Your task to perform on an android device: change your default location settings in chrome Image 0: 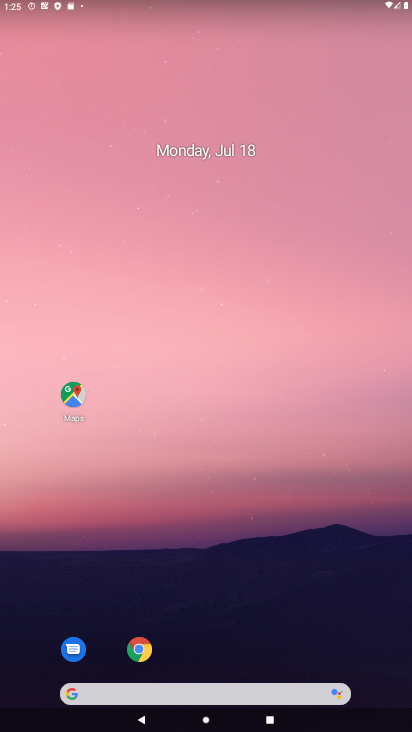
Step 0: drag from (249, 676) to (215, 66)
Your task to perform on an android device: change your default location settings in chrome Image 1: 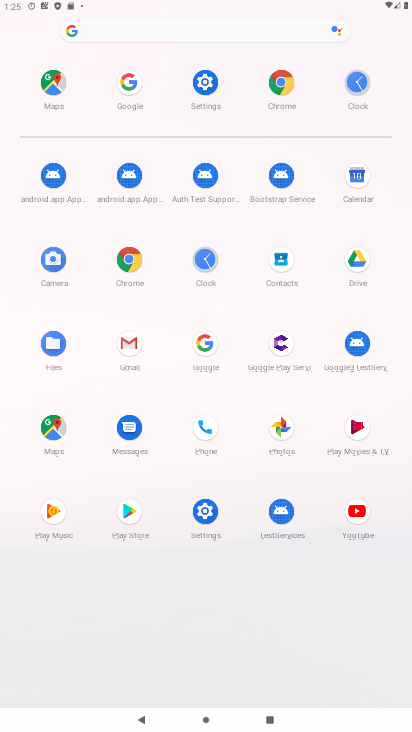
Step 1: click (142, 261)
Your task to perform on an android device: change your default location settings in chrome Image 2: 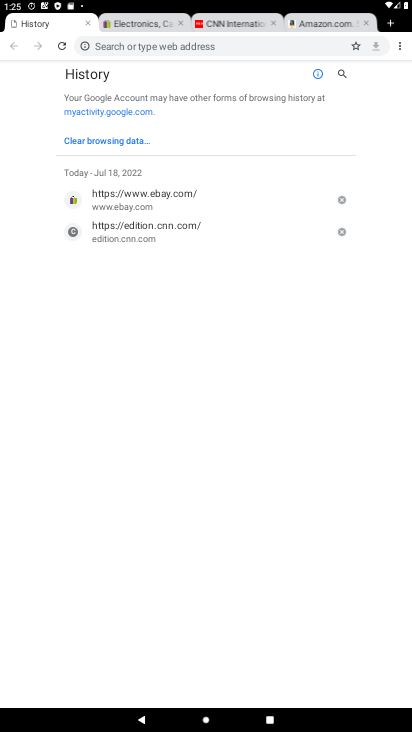
Step 2: click (401, 46)
Your task to perform on an android device: change your default location settings in chrome Image 3: 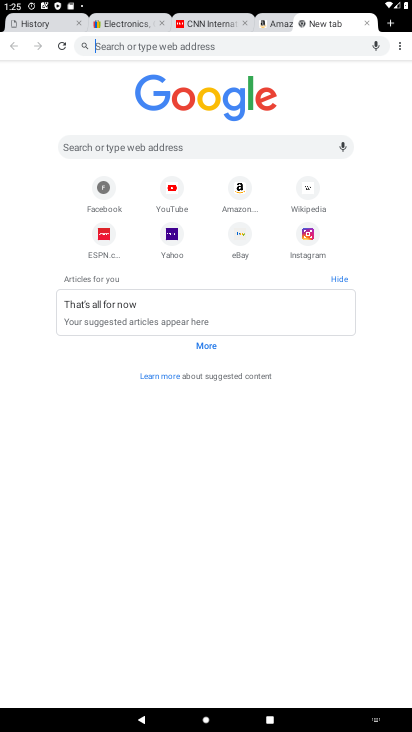
Step 3: click (398, 41)
Your task to perform on an android device: change your default location settings in chrome Image 4: 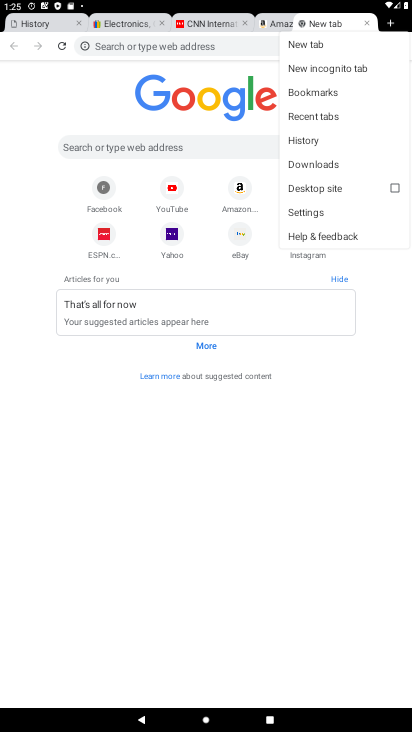
Step 4: click (324, 215)
Your task to perform on an android device: change your default location settings in chrome Image 5: 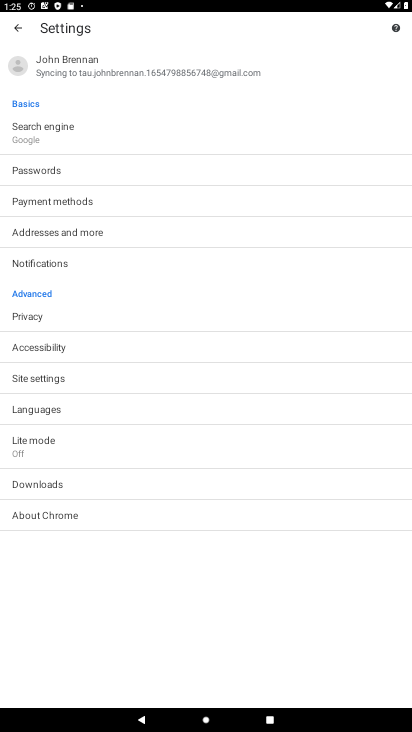
Step 5: click (42, 382)
Your task to perform on an android device: change your default location settings in chrome Image 6: 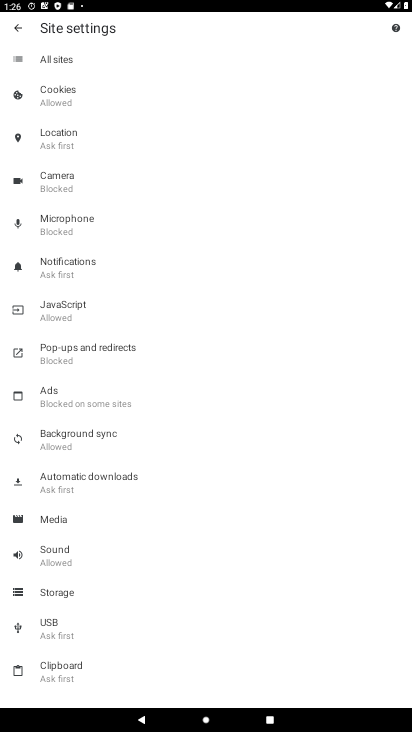
Step 6: click (67, 138)
Your task to perform on an android device: change your default location settings in chrome Image 7: 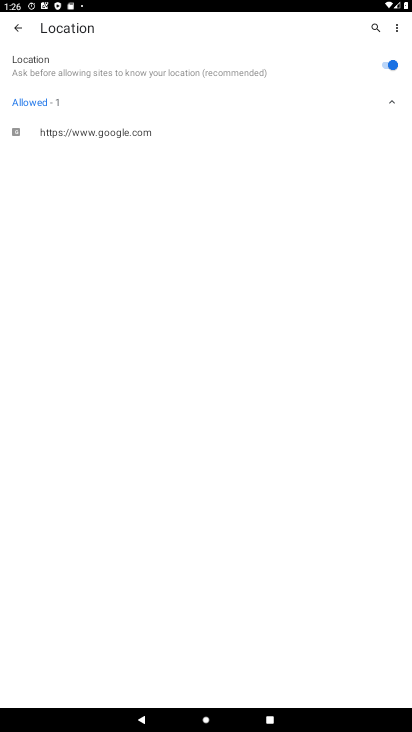
Step 7: click (382, 64)
Your task to perform on an android device: change your default location settings in chrome Image 8: 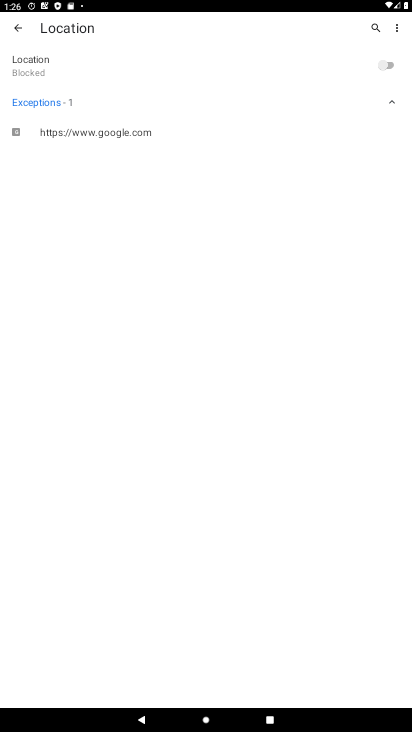
Step 8: task complete